Your task to perform on an android device: Is it going to rain this weekend? Image 0: 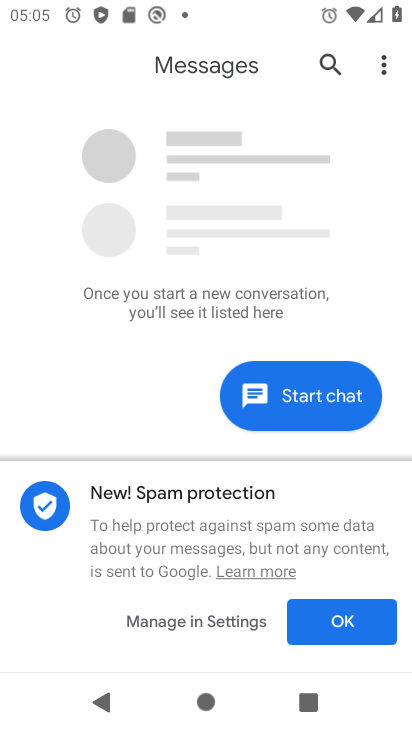
Step 0: press back button
Your task to perform on an android device: Is it going to rain this weekend? Image 1: 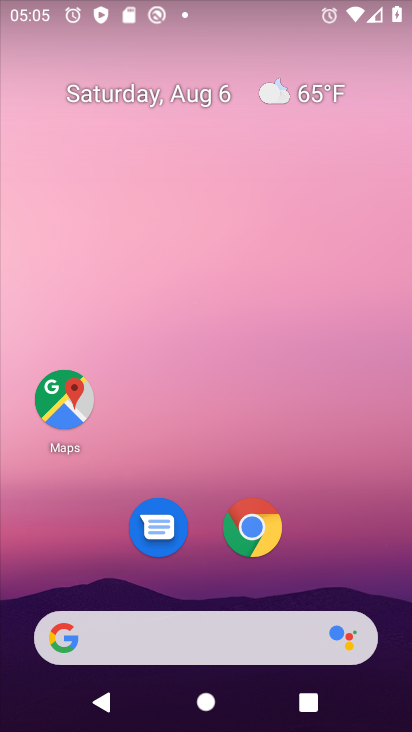
Step 1: drag from (230, 637) to (293, 63)
Your task to perform on an android device: Is it going to rain this weekend? Image 2: 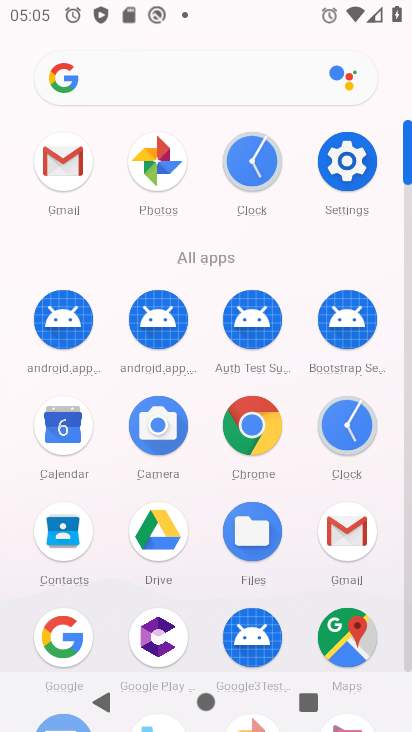
Step 2: click (266, 412)
Your task to perform on an android device: Is it going to rain this weekend? Image 3: 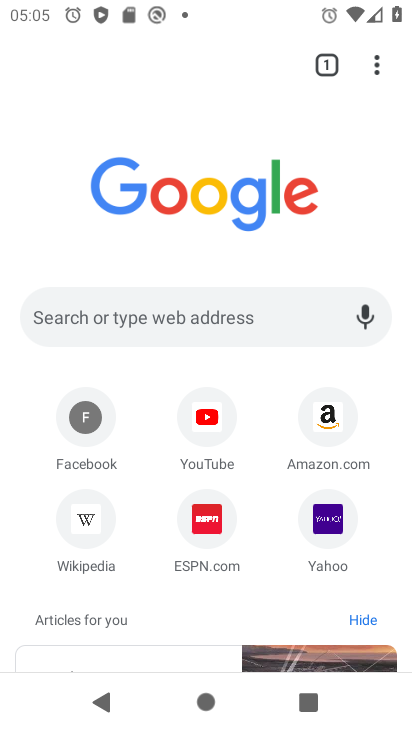
Step 3: click (212, 330)
Your task to perform on an android device: Is it going to rain this weekend? Image 4: 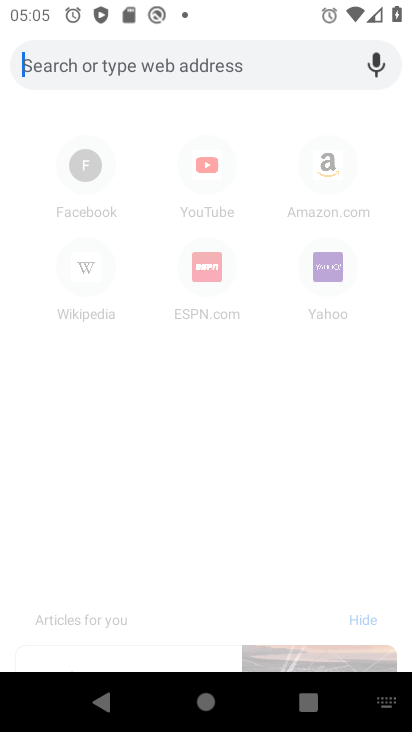
Step 4: type "weather this weekend"
Your task to perform on an android device: Is it going to rain this weekend? Image 5: 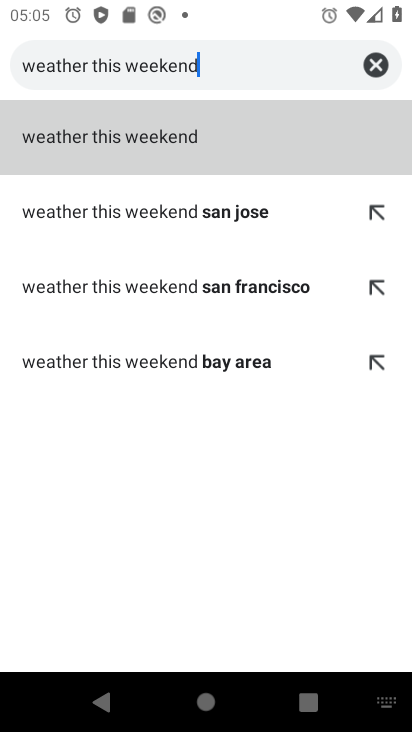
Step 5: click (124, 140)
Your task to perform on an android device: Is it going to rain this weekend? Image 6: 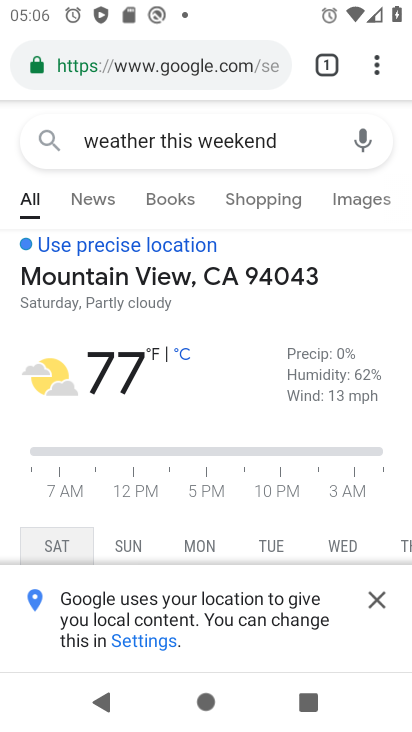
Step 6: task complete